Your task to perform on an android device: Go to location settings Image 0: 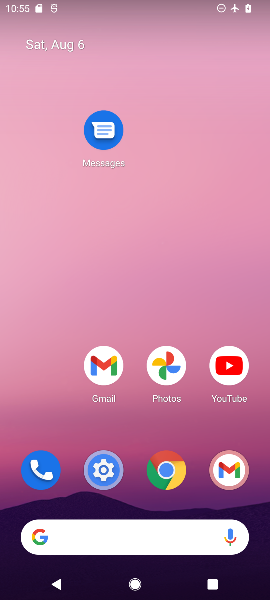
Step 0: drag from (133, 408) to (202, 20)
Your task to perform on an android device: Go to location settings Image 1: 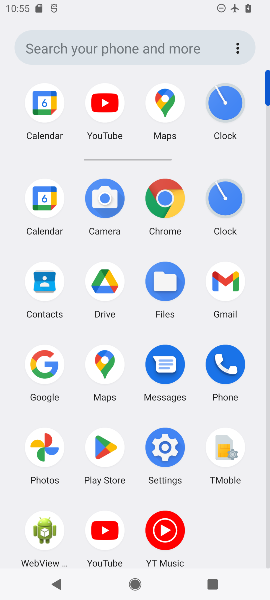
Step 1: click (184, 457)
Your task to perform on an android device: Go to location settings Image 2: 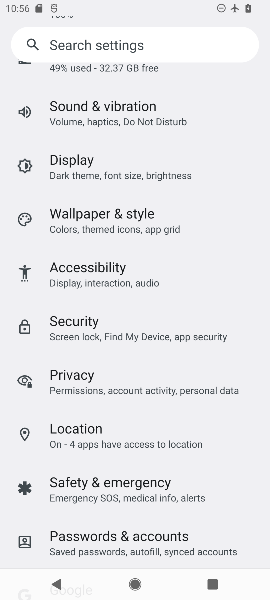
Step 2: click (82, 441)
Your task to perform on an android device: Go to location settings Image 3: 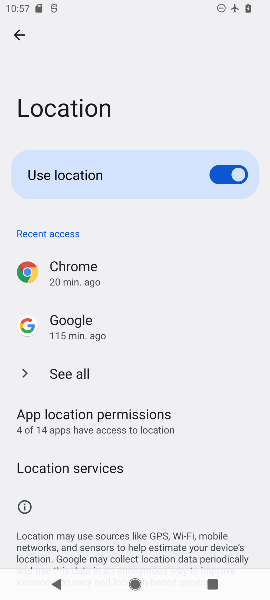
Step 3: task complete